Your task to perform on an android device: stop showing notifications on the lock screen Image 0: 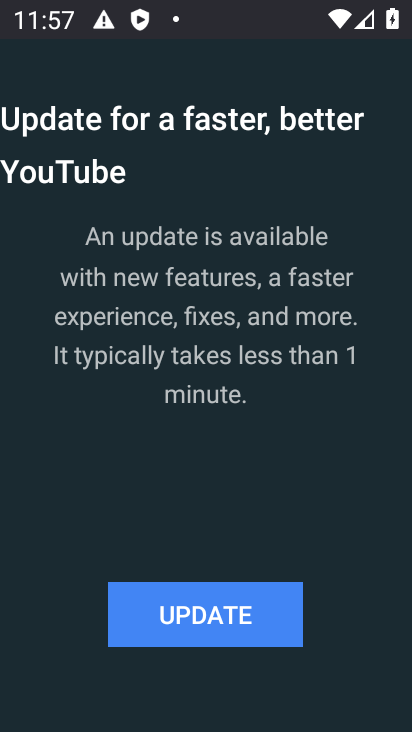
Step 0: press home button
Your task to perform on an android device: stop showing notifications on the lock screen Image 1: 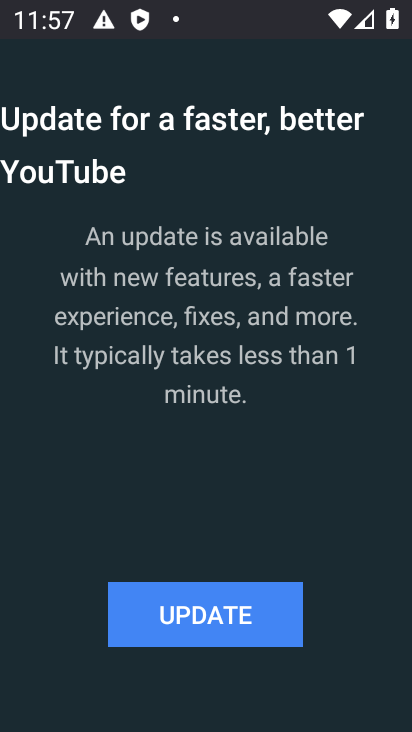
Step 1: press home button
Your task to perform on an android device: stop showing notifications on the lock screen Image 2: 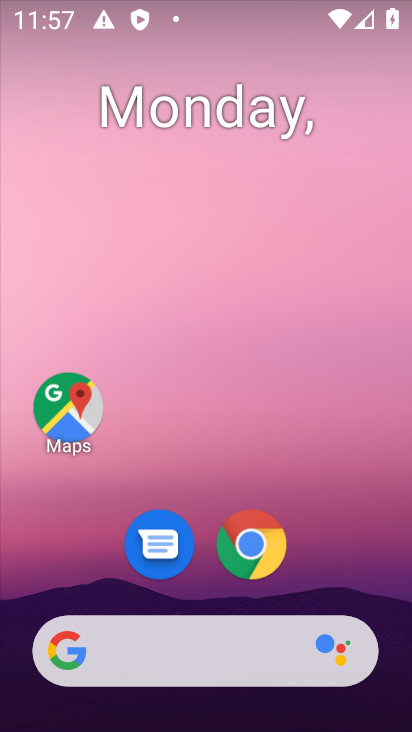
Step 2: drag from (359, 577) to (256, 49)
Your task to perform on an android device: stop showing notifications on the lock screen Image 3: 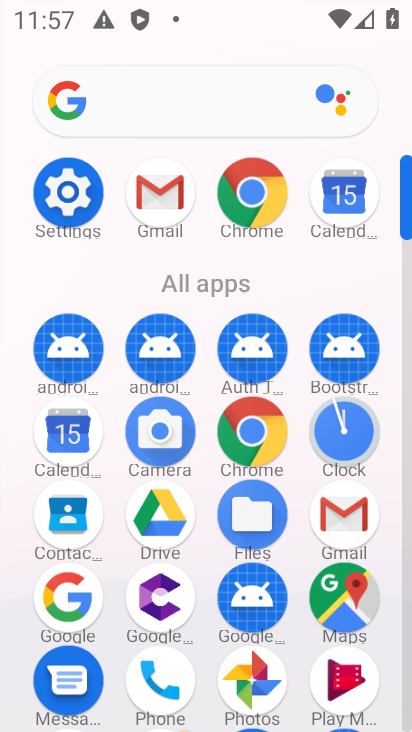
Step 3: click (74, 184)
Your task to perform on an android device: stop showing notifications on the lock screen Image 4: 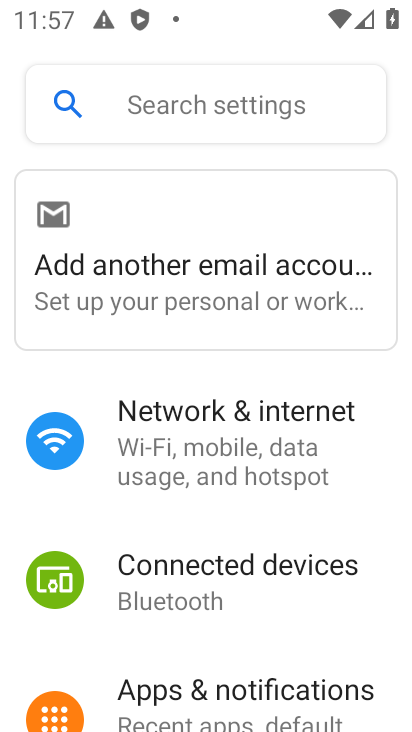
Step 4: click (228, 687)
Your task to perform on an android device: stop showing notifications on the lock screen Image 5: 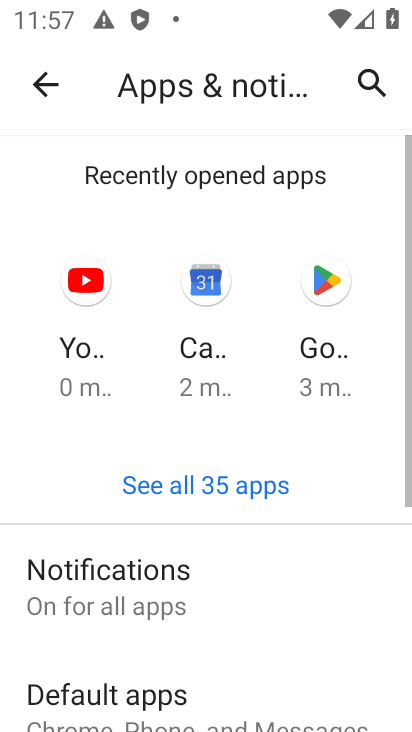
Step 5: click (142, 575)
Your task to perform on an android device: stop showing notifications on the lock screen Image 6: 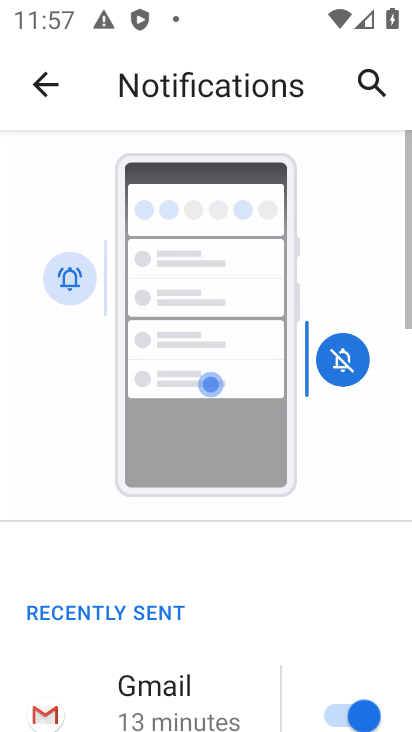
Step 6: drag from (234, 584) to (219, 6)
Your task to perform on an android device: stop showing notifications on the lock screen Image 7: 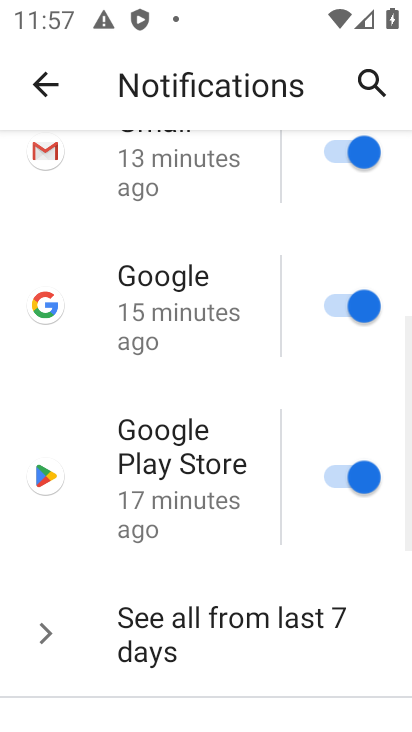
Step 7: drag from (272, 647) to (226, 202)
Your task to perform on an android device: stop showing notifications on the lock screen Image 8: 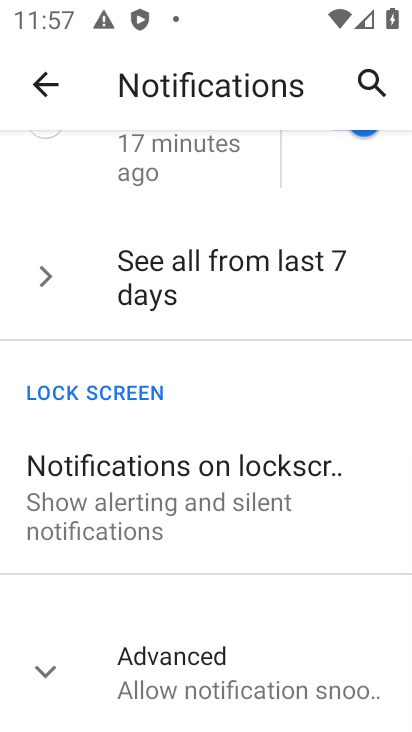
Step 8: click (216, 480)
Your task to perform on an android device: stop showing notifications on the lock screen Image 9: 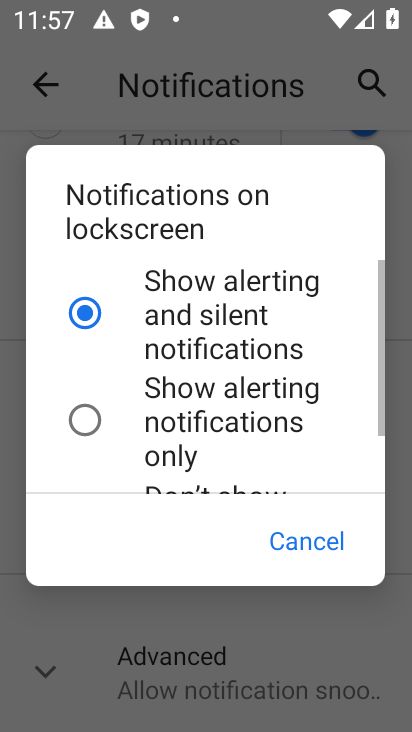
Step 9: drag from (150, 412) to (170, 160)
Your task to perform on an android device: stop showing notifications on the lock screen Image 10: 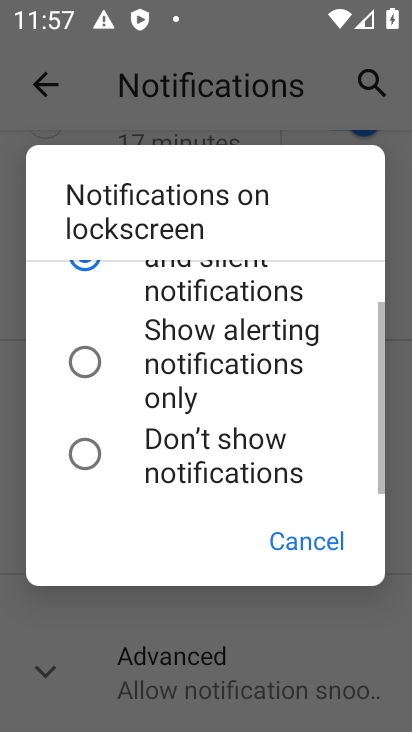
Step 10: click (90, 451)
Your task to perform on an android device: stop showing notifications on the lock screen Image 11: 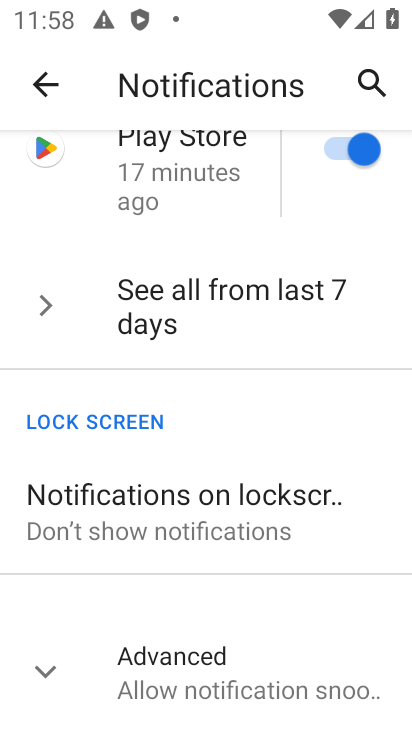
Step 11: task complete